Your task to perform on an android device: Go to wifi settings Image 0: 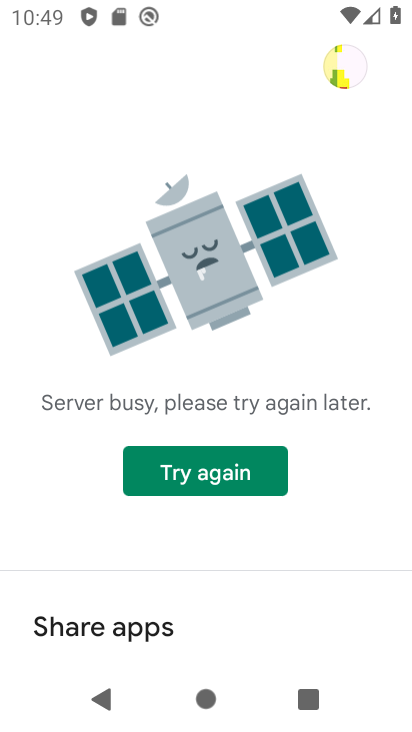
Step 0: press home button
Your task to perform on an android device: Go to wifi settings Image 1: 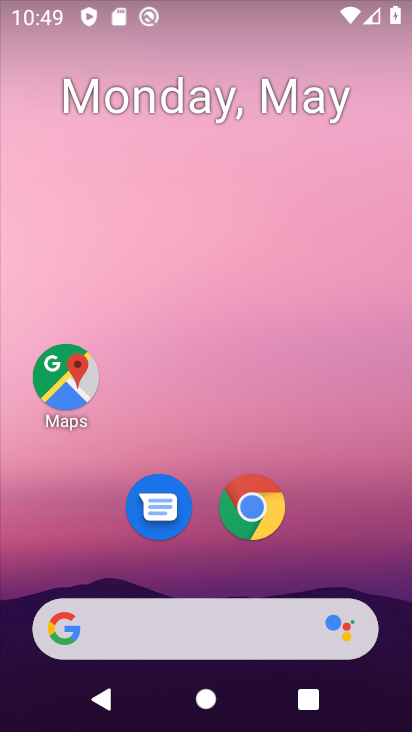
Step 1: drag from (304, 569) to (329, 204)
Your task to perform on an android device: Go to wifi settings Image 2: 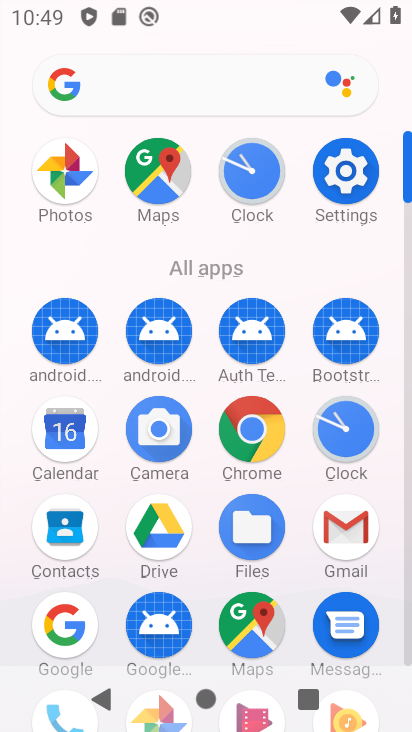
Step 2: click (345, 197)
Your task to perform on an android device: Go to wifi settings Image 3: 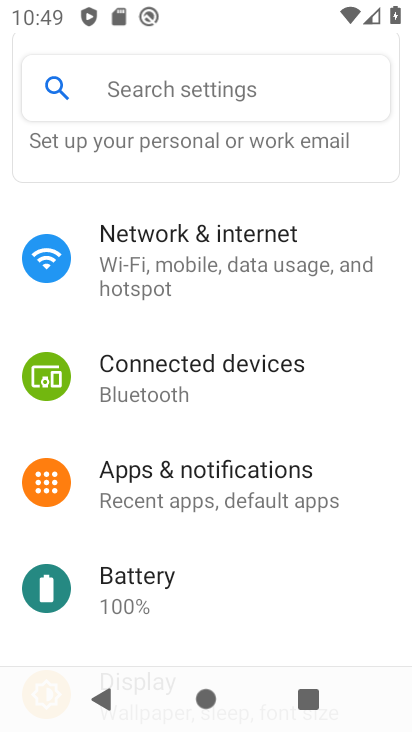
Step 3: drag from (218, 267) to (223, 538)
Your task to perform on an android device: Go to wifi settings Image 4: 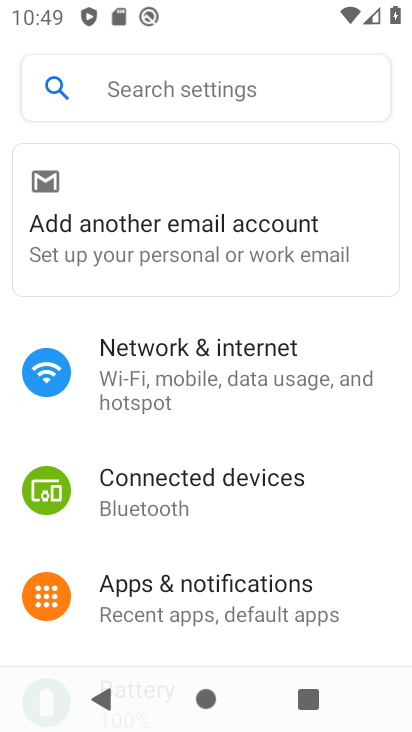
Step 4: click (239, 380)
Your task to perform on an android device: Go to wifi settings Image 5: 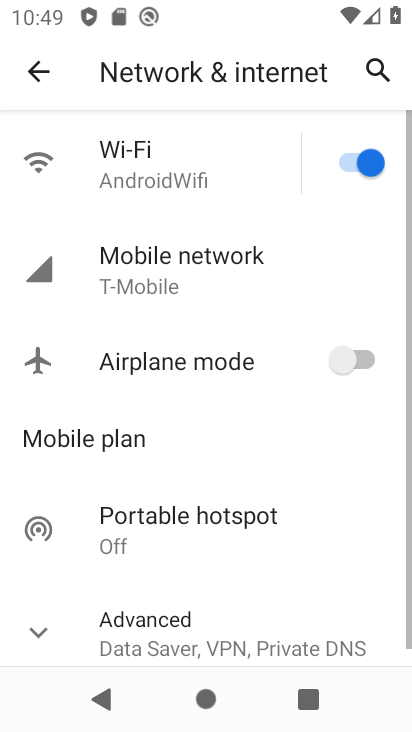
Step 5: click (169, 170)
Your task to perform on an android device: Go to wifi settings Image 6: 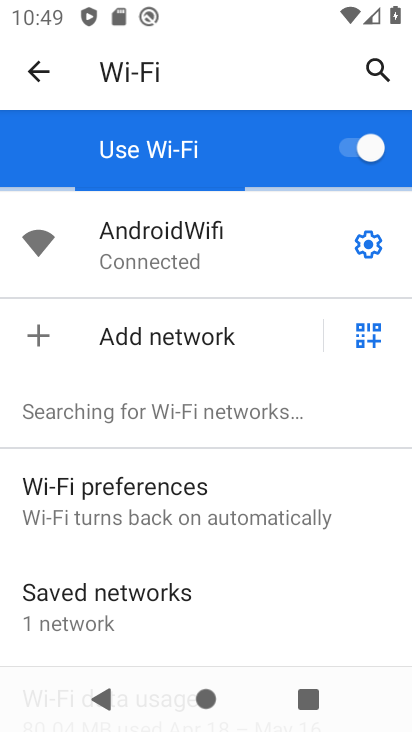
Step 6: task complete